Your task to perform on an android device: toggle translation in the chrome app Image 0: 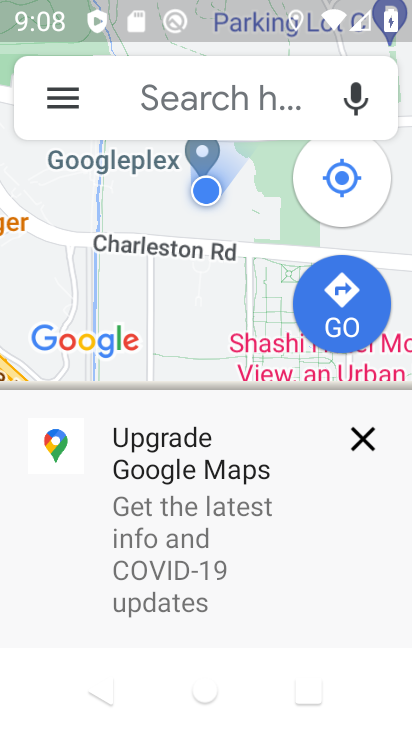
Step 0: press home button
Your task to perform on an android device: toggle translation in the chrome app Image 1: 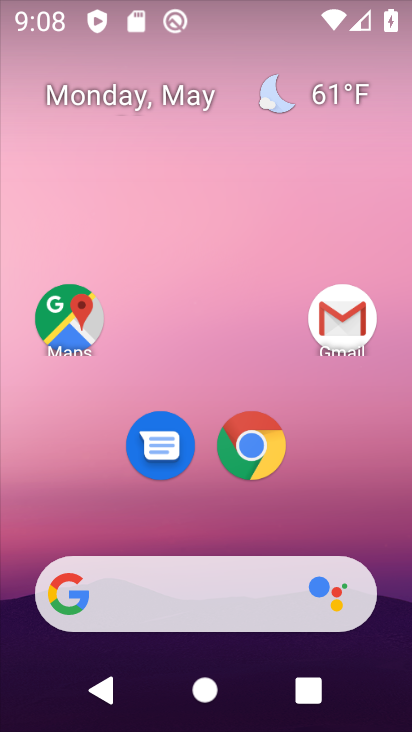
Step 1: drag from (380, 523) to (381, 146)
Your task to perform on an android device: toggle translation in the chrome app Image 2: 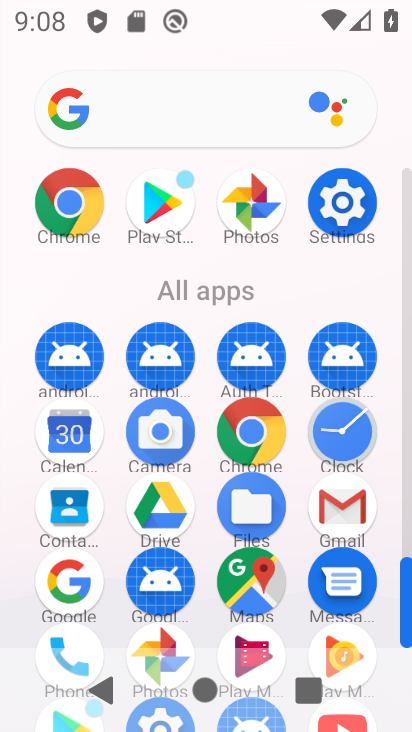
Step 2: click (264, 431)
Your task to perform on an android device: toggle translation in the chrome app Image 3: 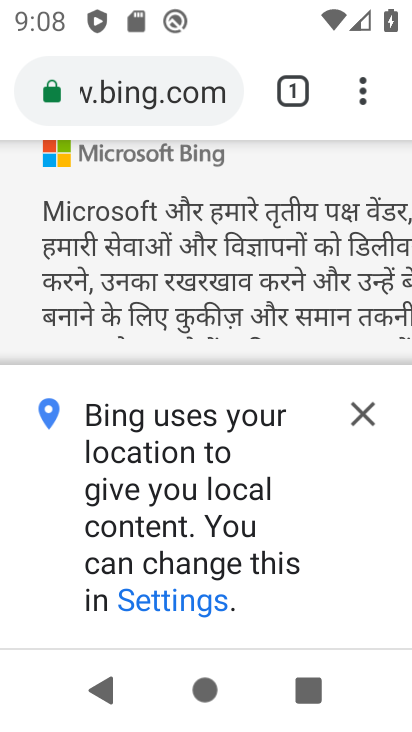
Step 3: click (362, 103)
Your task to perform on an android device: toggle translation in the chrome app Image 4: 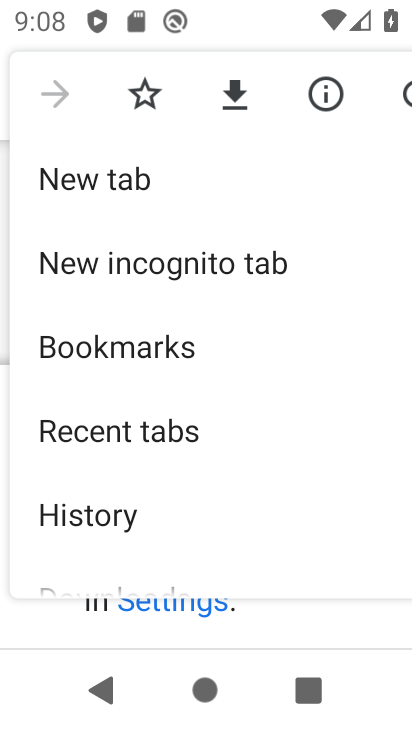
Step 4: drag from (322, 429) to (338, 354)
Your task to perform on an android device: toggle translation in the chrome app Image 5: 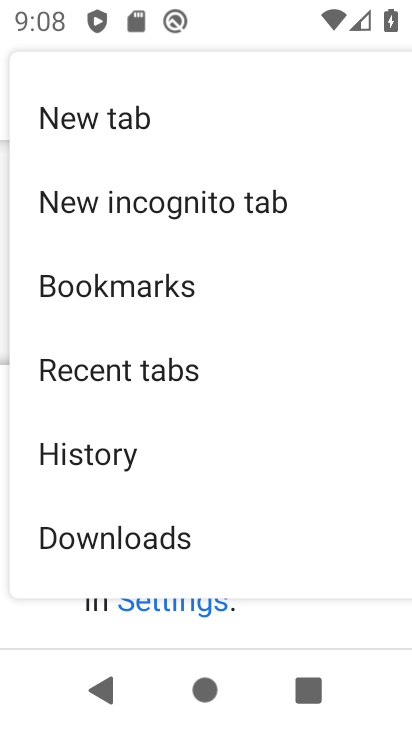
Step 5: drag from (332, 430) to (335, 359)
Your task to perform on an android device: toggle translation in the chrome app Image 6: 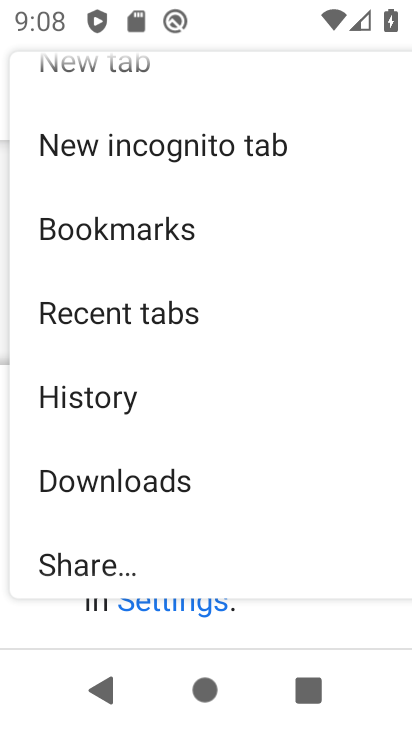
Step 6: drag from (328, 438) to (355, 307)
Your task to perform on an android device: toggle translation in the chrome app Image 7: 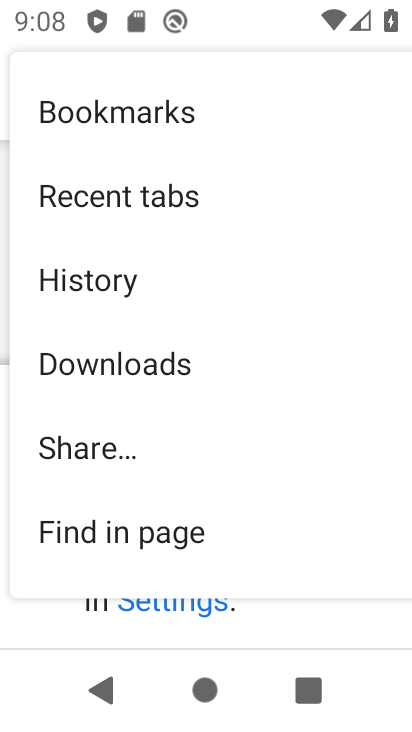
Step 7: drag from (349, 417) to (360, 334)
Your task to perform on an android device: toggle translation in the chrome app Image 8: 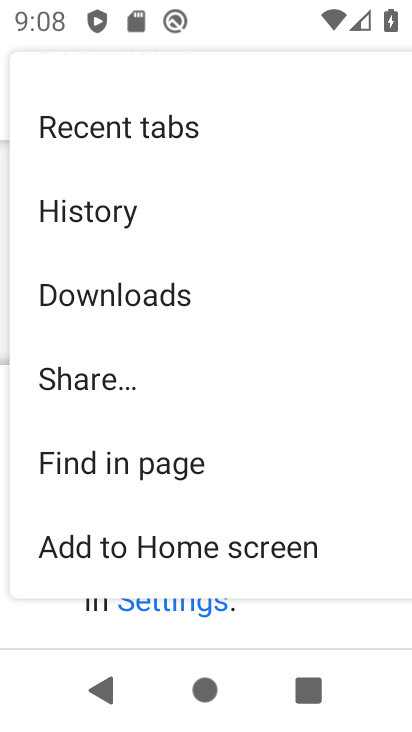
Step 8: drag from (348, 429) to (344, 342)
Your task to perform on an android device: toggle translation in the chrome app Image 9: 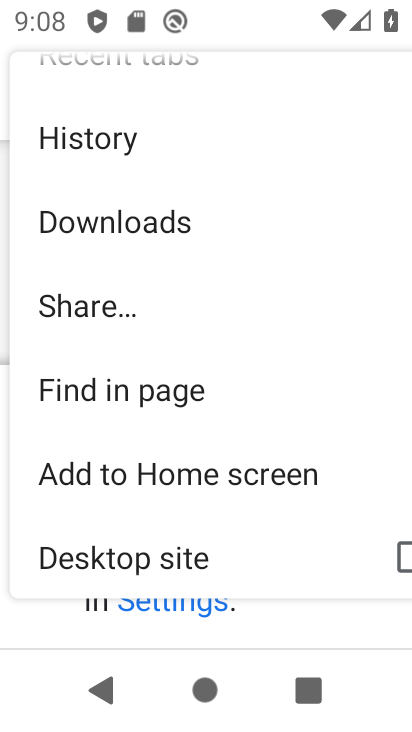
Step 9: drag from (342, 438) to (346, 333)
Your task to perform on an android device: toggle translation in the chrome app Image 10: 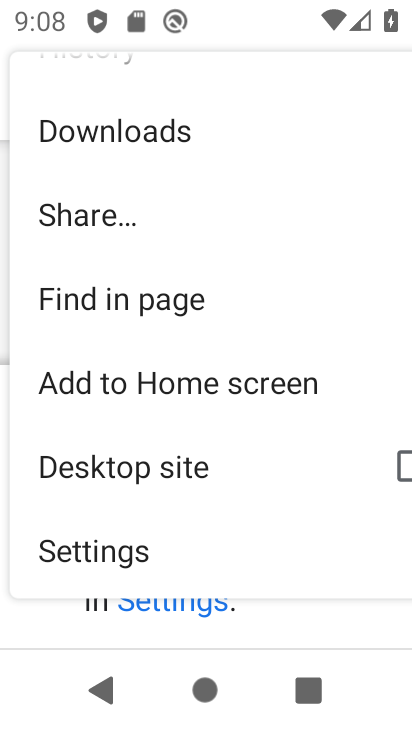
Step 10: drag from (342, 419) to (342, 300)
Your task to perform on an android device: toggle translation in the chrome app Image 11: 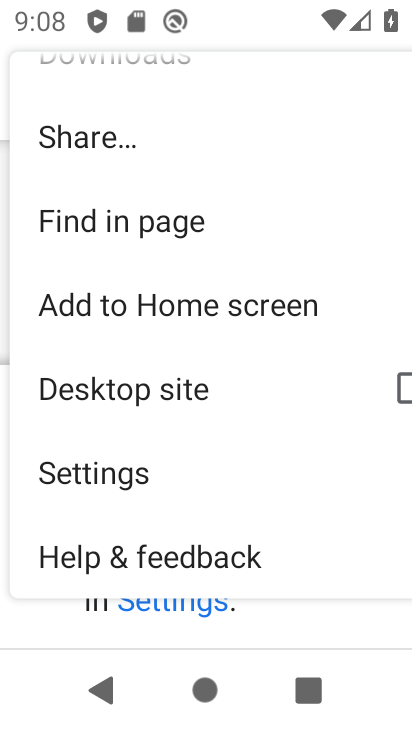
Step 11: drag from (334, 442) to (336, 321)
Your task to perform on an android device: toggle translation in the chrome app Image 12: 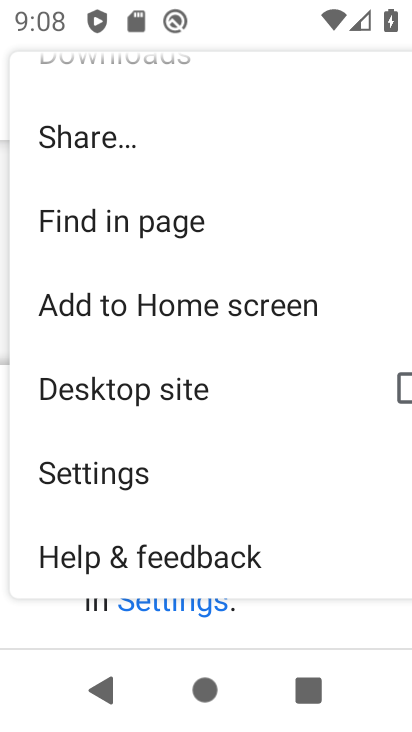
Step 12: click (225, 480)
Your task to perform on an android device: toggle translation in the chrome app Image 13: 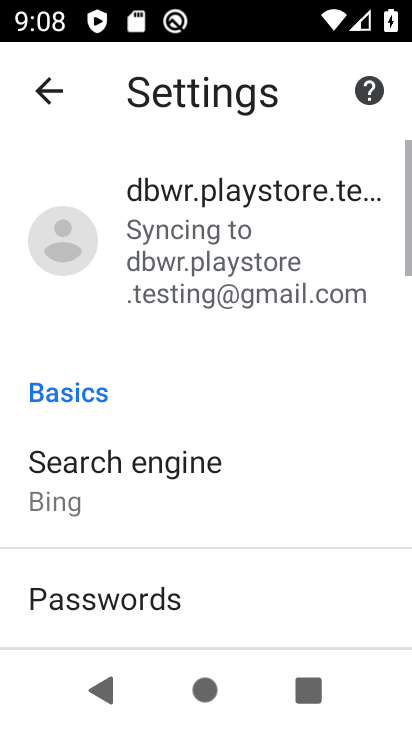
Step 13: drag from (318, 482) to (323, 406)
Your task to perform on an android device: toggle translation in the chrome app Image 14: 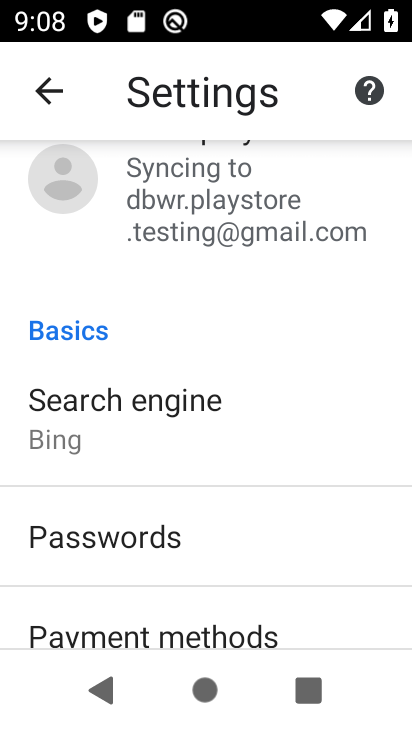
Step 14: drag from (327, 502) to (333, 434)
Your task to perform on an android device: toggle translation in the chrome app Image 15: 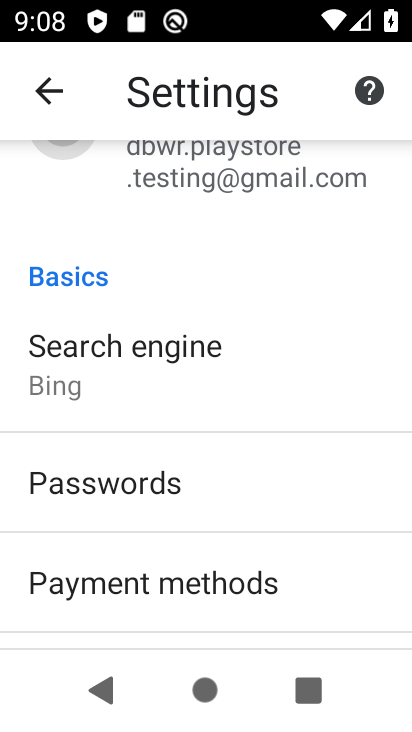
Step 15: drag from (332, 528) to (336, 469)
Your task to perform on an android device: toggle translation in the chrome app Image 16: 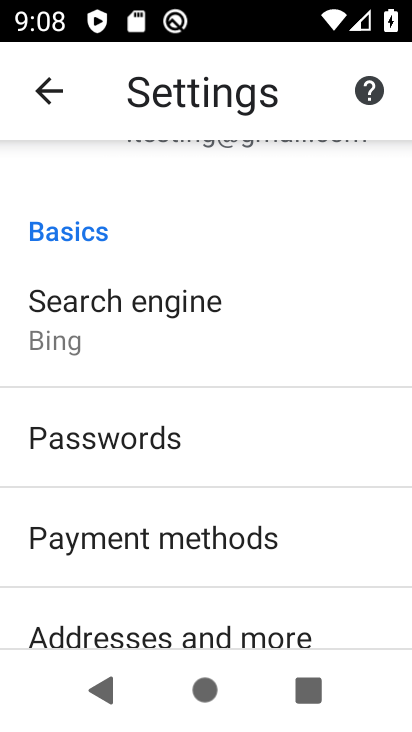
Step 16: drag from (343, 538) to (355, 466)
Your task to perform on an android device: toggle translation in the chrome app Image 17: 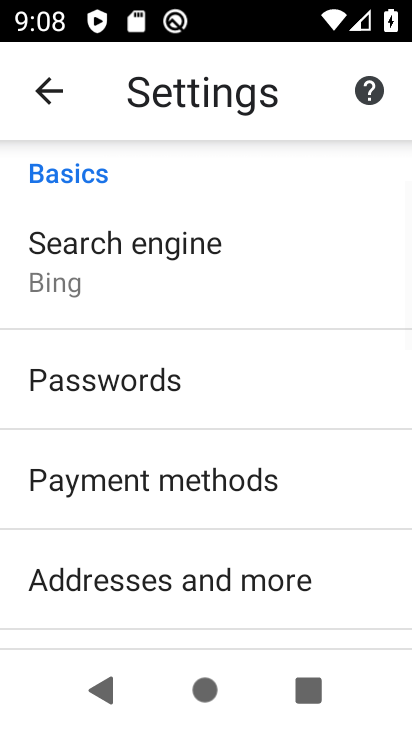
Step 17: drag from (352, 541) to (360, 476)
Your task to perform on an android device: toggle translation in the chrome app Image 18: 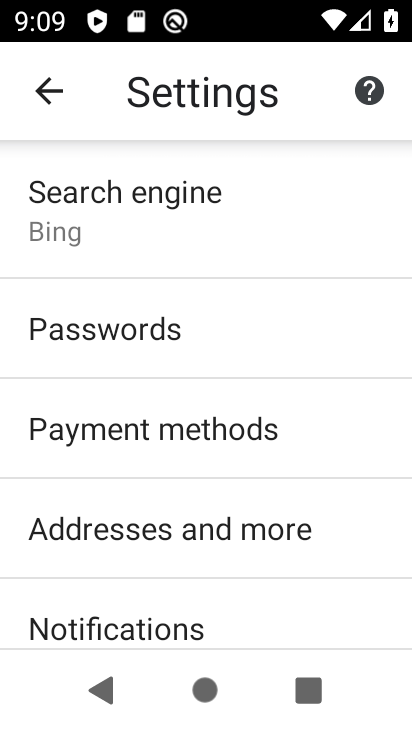
Step 18: drag from (356, 534) to (359, 450)
Your task to perform on an android device: toggle translation in the chrome app Image 19: 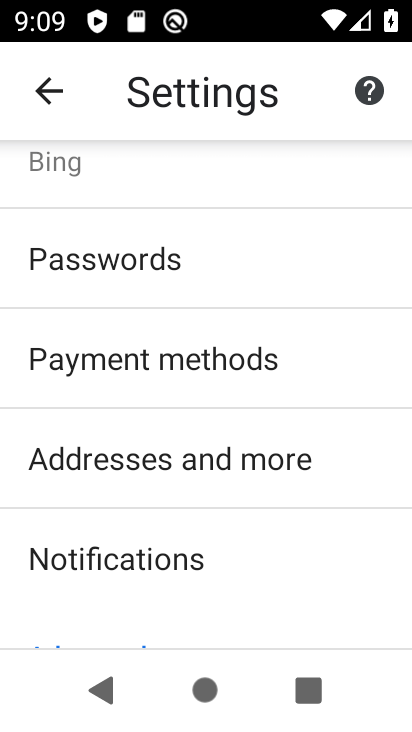
Step 19: drag from (360, 509) to (359, 460)
Your task to perform on an android device: toggle translation in the chrome app Image 20: 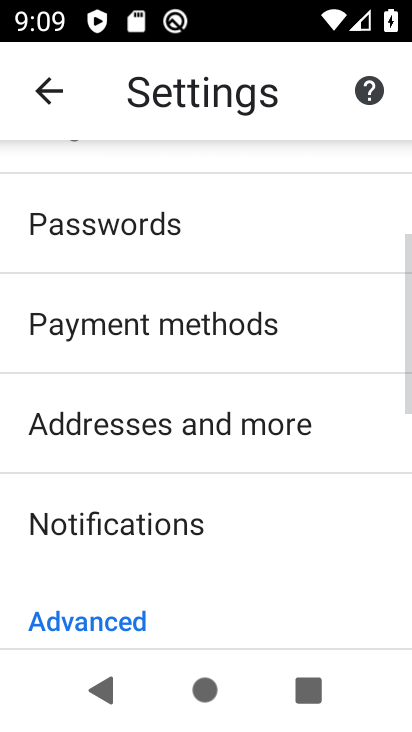
Step 20: drag from (352, 526) to (352, 470)
Your task to perform on an android device: toggle translation in the chrome app Image 21: 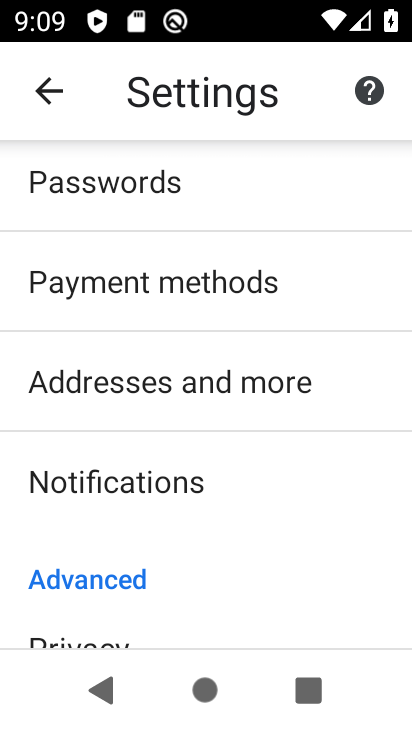
Step 21: drag from (342, 538) to (366, 455)
Your task to perform on an android device: toggle translation in the chrome app Image 22: 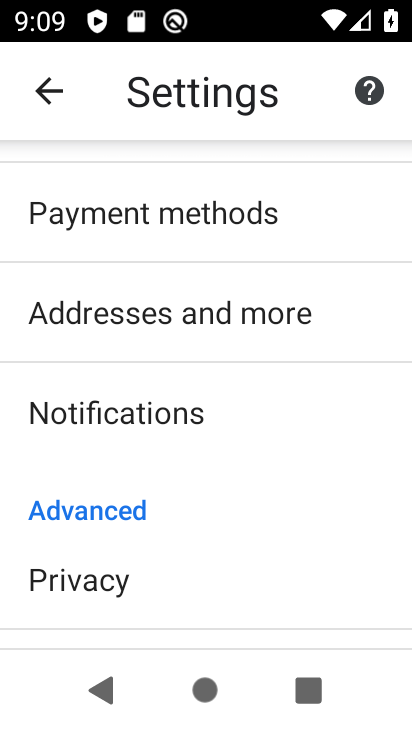
Step 22: drag from (350, 578) to (350, 505)
Your task to perform on an android device: toggle translation in the chrome app Image 23: 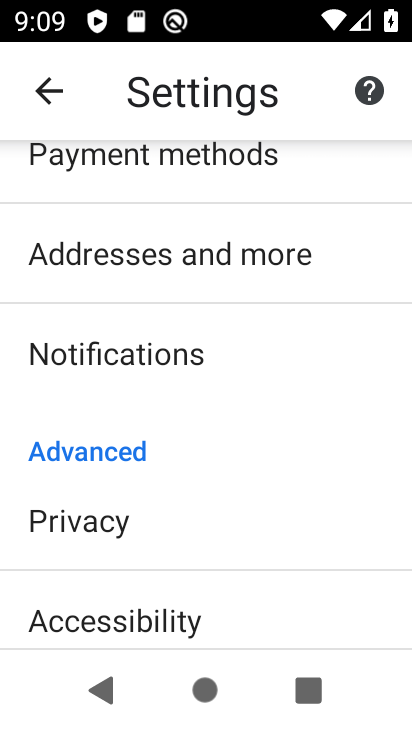
Step 23: drag from (359, 582) to (365, 494)
Your task to perform on an android device: toggle translation in the chrome app Image 24: 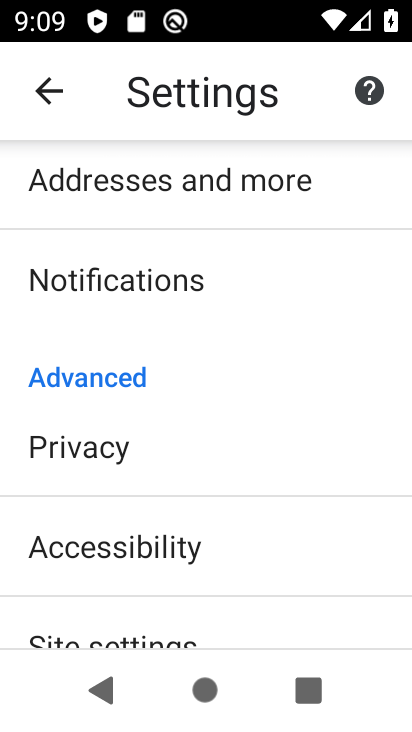
Step 24: drag from (352, 547) to (349, 464)
Your task to perform on an android device: toggle translation in the chrome app Image 25: 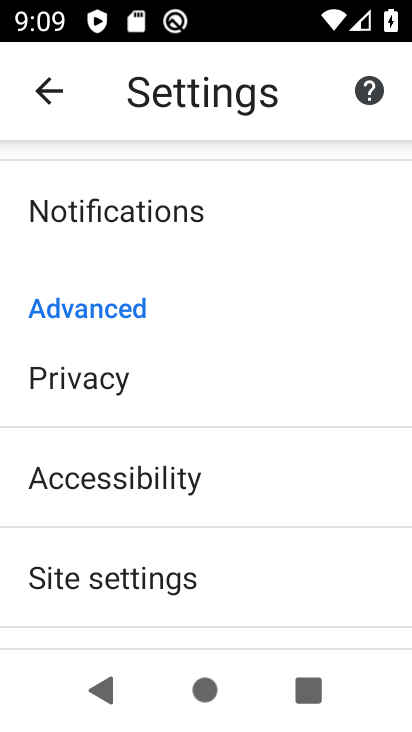
Step 25: drag from (343, 564) to (352, 419)
Your task to perform on an android device: toggle translation in the chrome app Image 26: 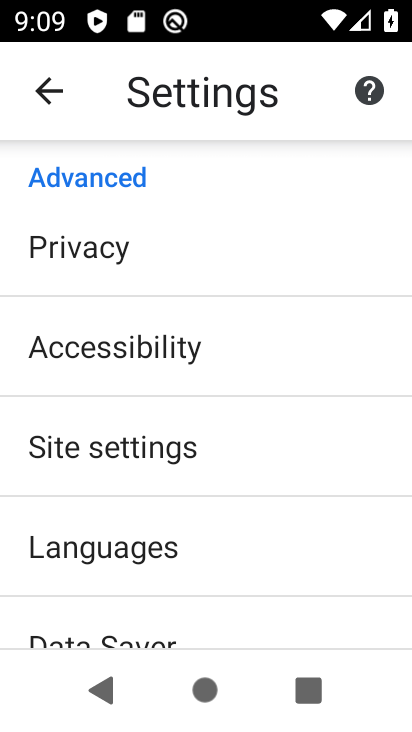
Step 26: click (234, 543)
Your task to perform on an android device: toggle translation in the chrome app Image 27: 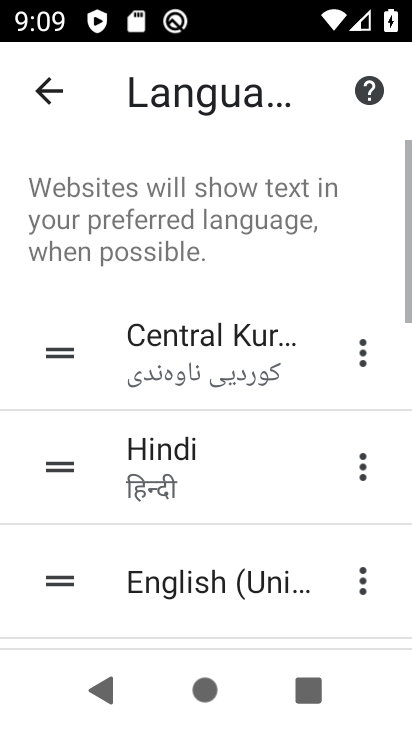
Step 27: drag from (249, 536) to (266, 446)
Your task to perform on an android device: toggle translation in the chrome app Image 28: 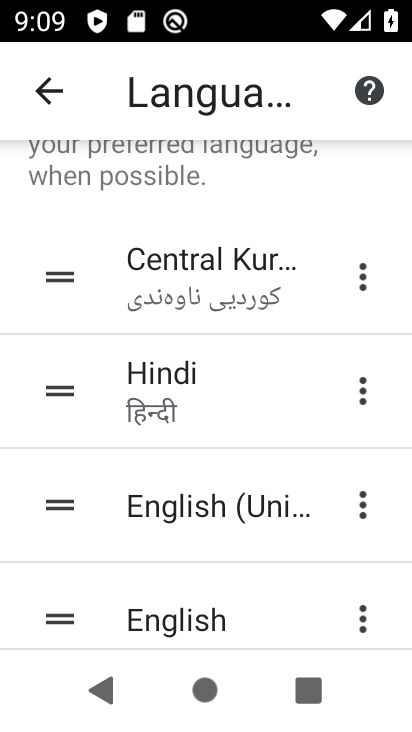
Step 28: drag from (283, 590) to (290, 376)
Your task to perform on an android device: toggle translation in the chrome app Image 29: 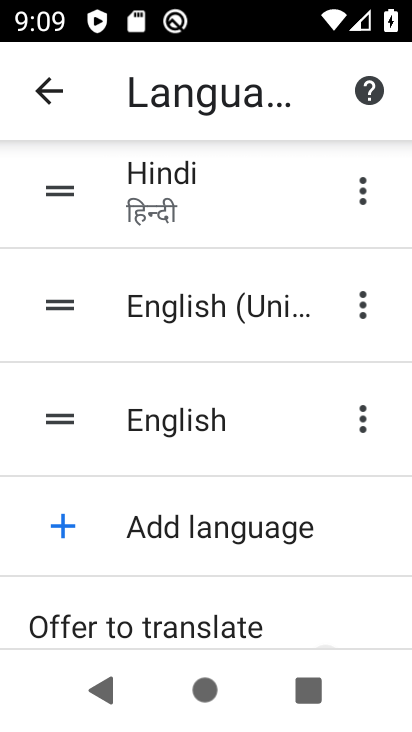
Step 29: drag from (312, 567) to (324, 310)
Your task to perform on an android device: toggle translation in the chrome app Image 30: 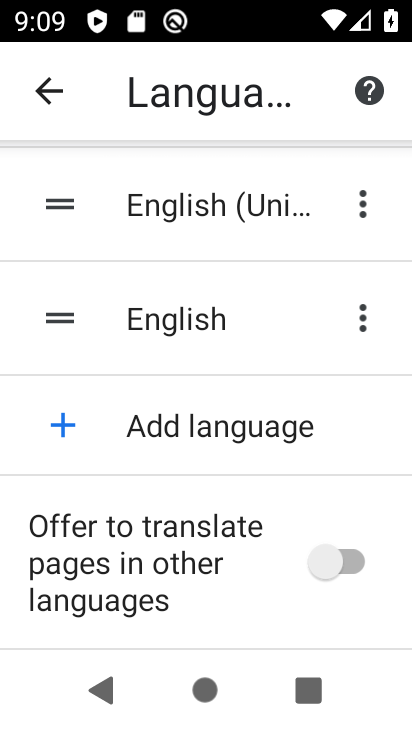
Step 30: click (350, 541)
Your task to perform on an android device: toggle translation in the chrome app Image 31: 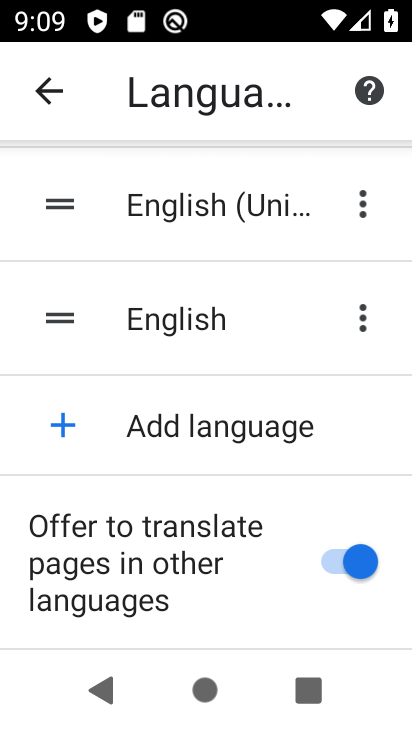
Step 31: task complete